Your task to perform on an android device: open a bookmark in the chrome app Image 0: 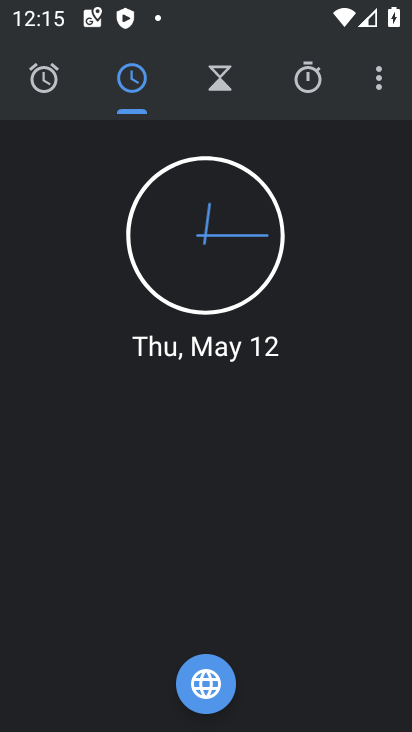
Step 0: drag from (277, 569) to (281, 150)
Your task to perform on an android device: open a bookmark in the chrome app Image 1: 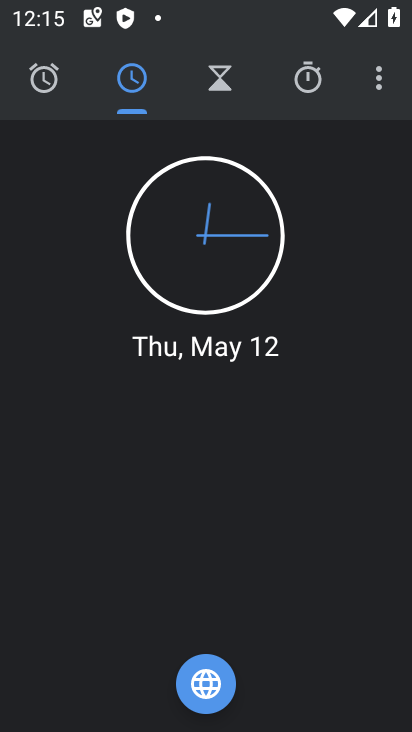
Step 1: press home button
Your task to perform on an android device: open a bookmark in the chrome app Image 2: 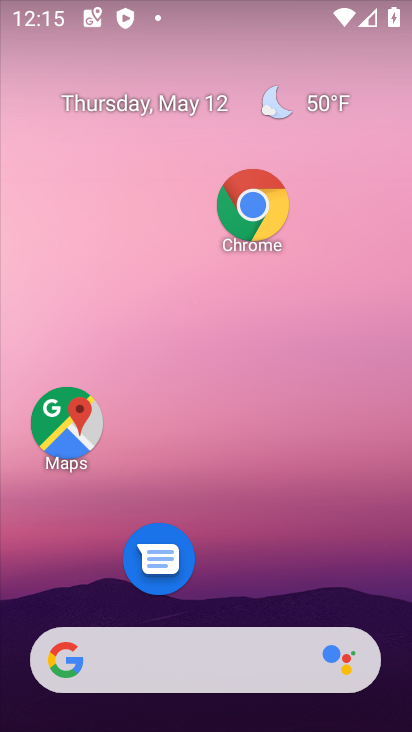
Step 2: click (245, 228)
Your task to perform on an android device: open a bookmark in the chrome app Image 3: 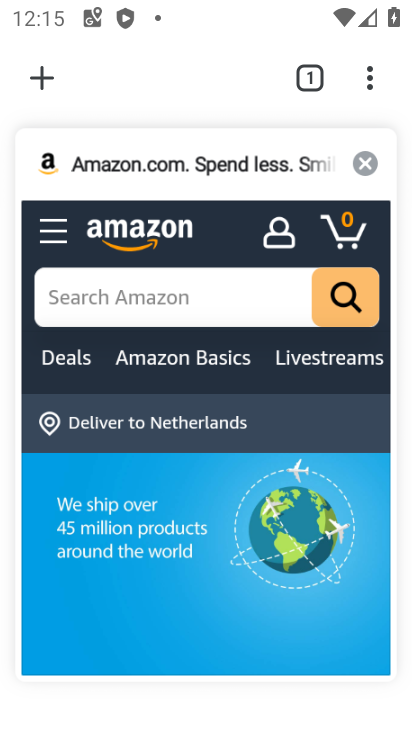
Step 3: click (235, 172)
Your task to perform on an android device: open a bookmark in the chrome app Image 4: 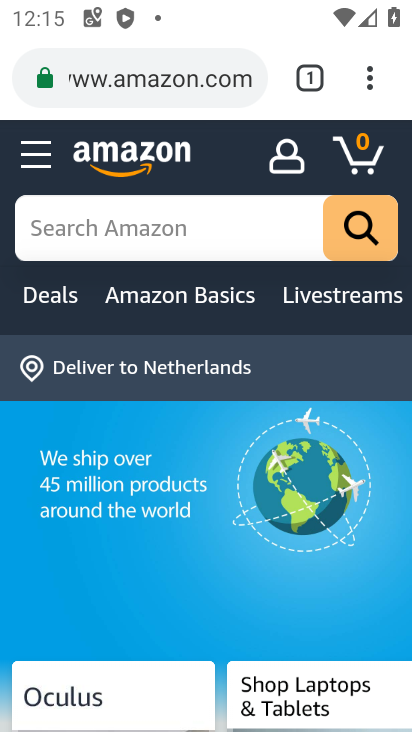
Step 4: click (161, 156)
Your task to perform on an android device: open a bookmark in the chrome app Image 5: 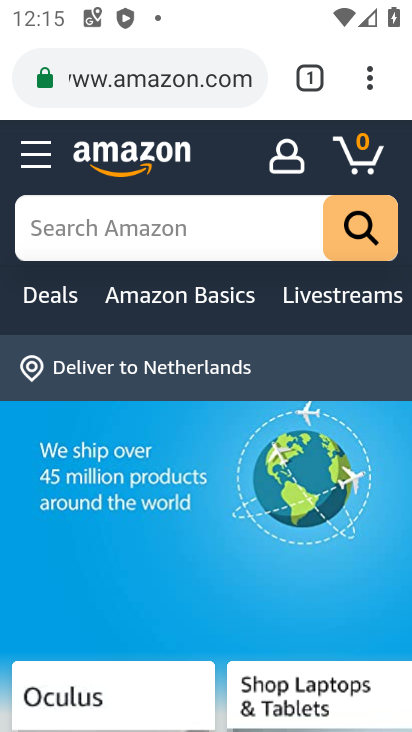
Step 5: click (370, 88)
Your task to perform on an android device: open a bookmark in the chrome app Image 6: 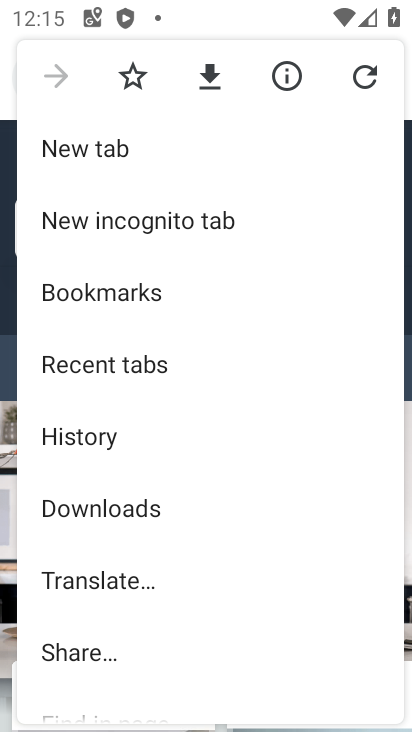
Step 6: click (144, 298)
Your task to perform on an android device: open a bookmark in the chrome app Image 7: 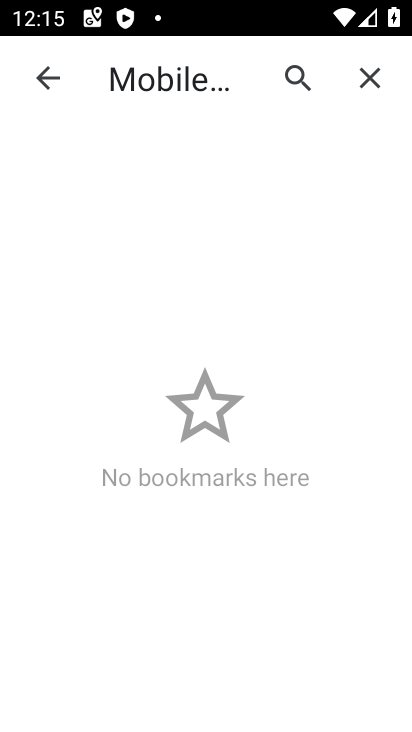
Step 7: task complete